Your task to perform on an android device: Open the web browser Image 0: 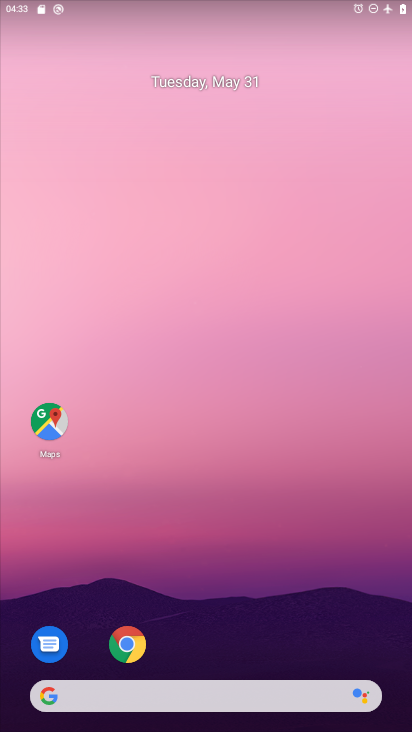
Step 0: click (123, 644)
Your task to perform on an android device: Open the web browser Image 1: 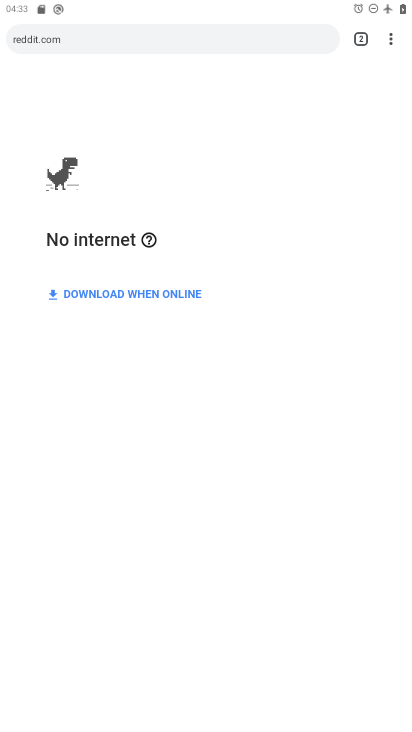
Step 1: task complete